Your task to perform on an android device: open a new tab in the chrome app Image 0: 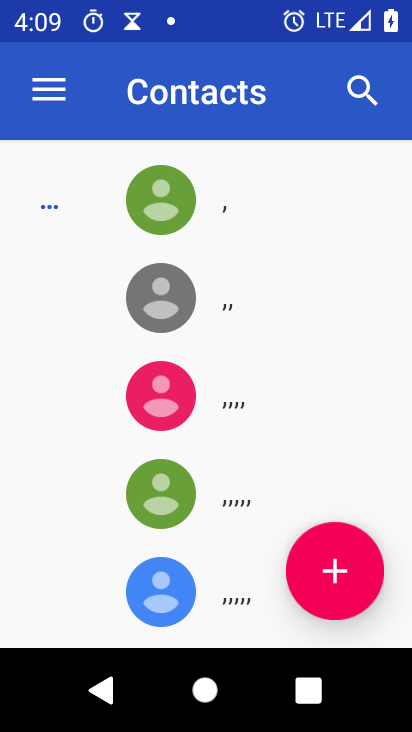
Step 0: press home button
Your task to perform on an android device: open a new tab in the chrome app Image 1: 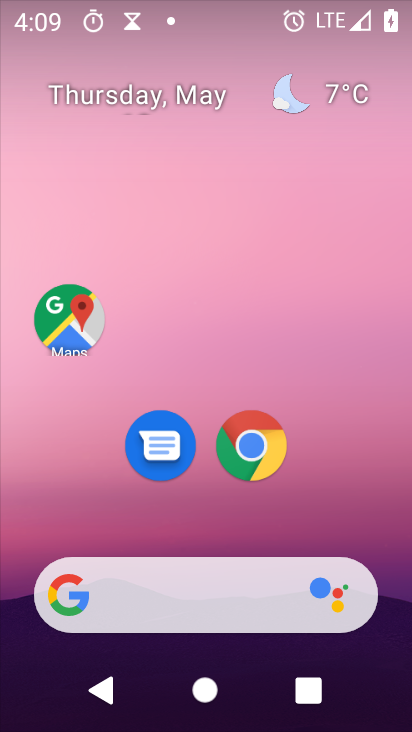
Step 1: click (259, 444)
Your task to perform on an android device: open a new tab in the chrome app Image 2: 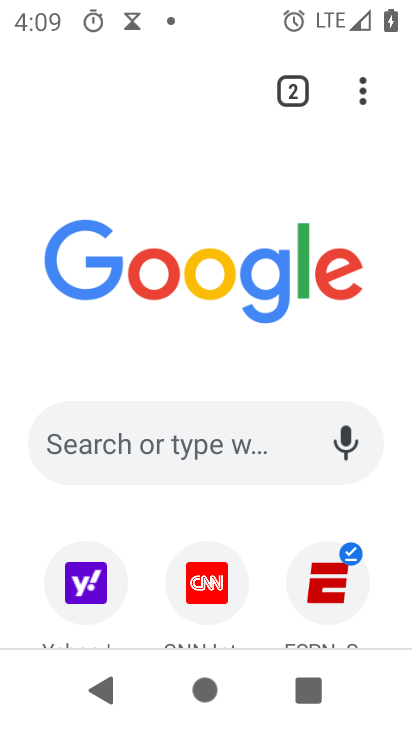
Step 2: click (365, 94)
Your task to perform on an android device: open a new tab in the chrome app Image 3: 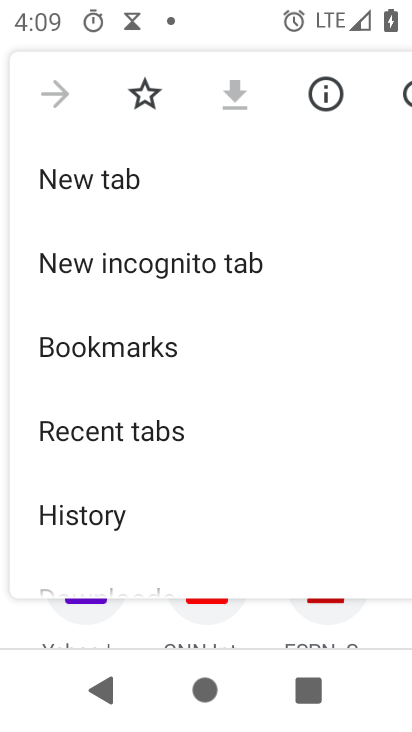
Step 3: click (97, 187)
Your task to perform on an android device: open a new tab in the chrome app Image 4: 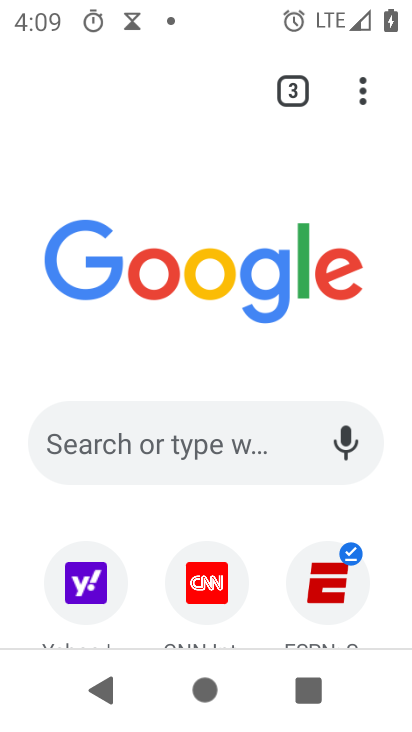
Step 4: task complete